Your task to perform on an android device: turn on bluetooth scan Image 0: 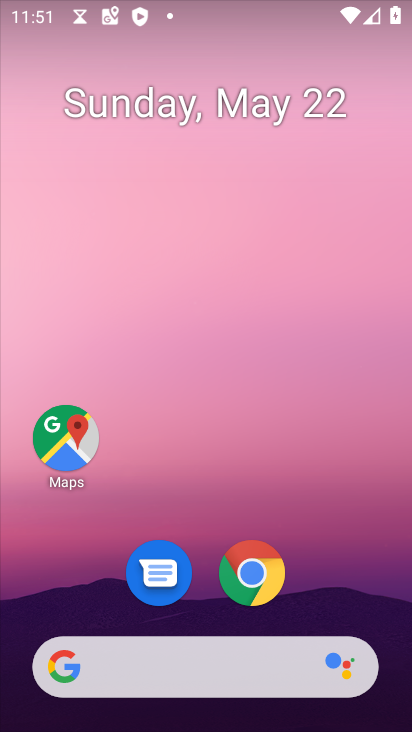
Step 0: press home button
Your task to perform on an android device: turn on bluetooth scan Image 1: 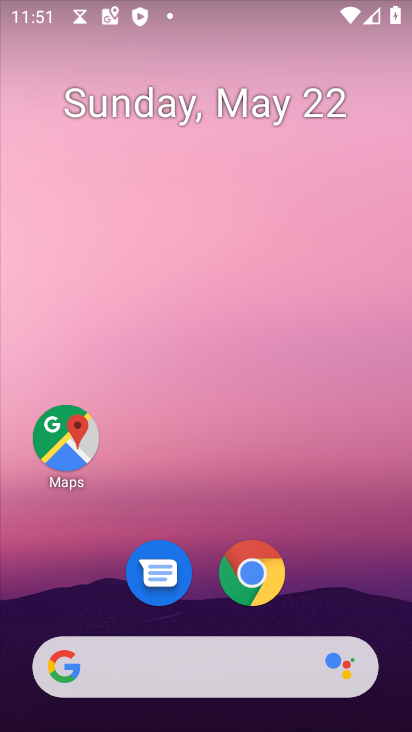
Step 1: drag from (163, 664) to (385, 85)
Your task to perform on an android device: turn on bluetooth scan Image 2: 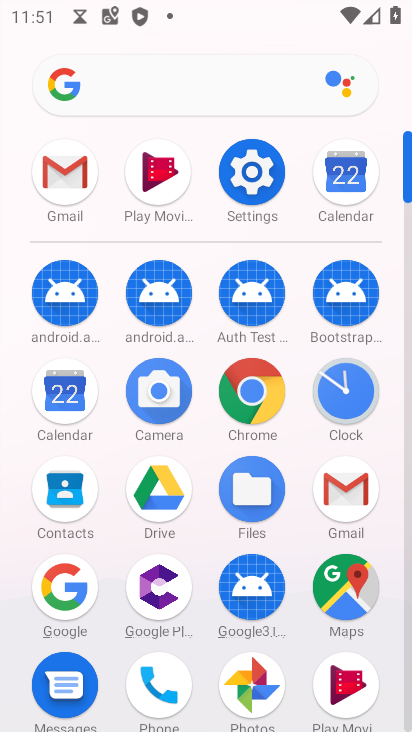
Step 2: click (261, 182)
Your task to perform on an android device: turn on bluetooth scan Image 3: 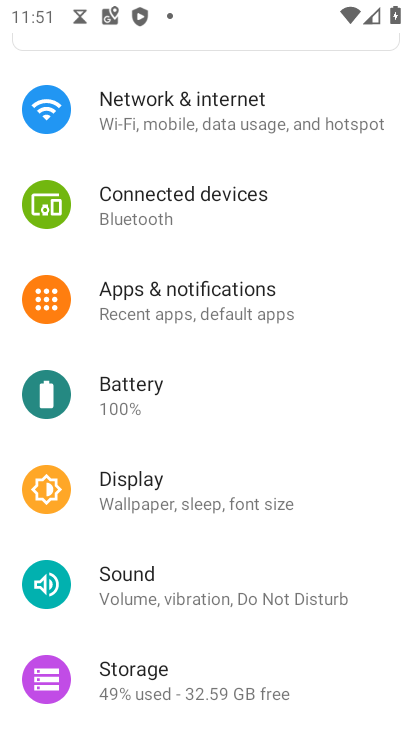
Step 3: drag from (290, 568) to (391, 51)
Your task to perform on an android device: turn on bluetooth scan Image 4: 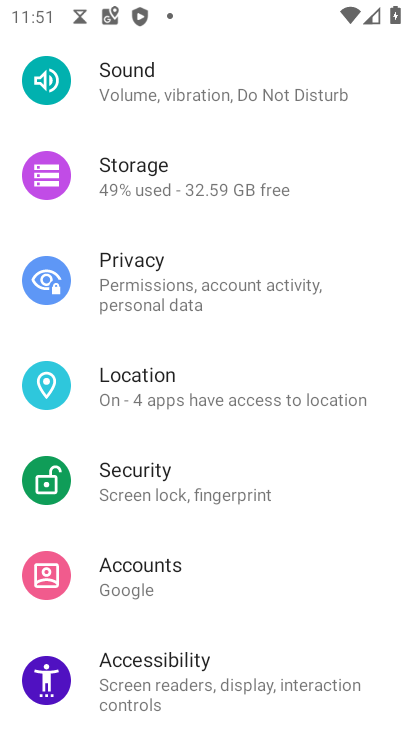
Step 4: drag from (241, 633) to (326, 222)
Your task to perform on an android device: turn on bluetooth scan Image 5: 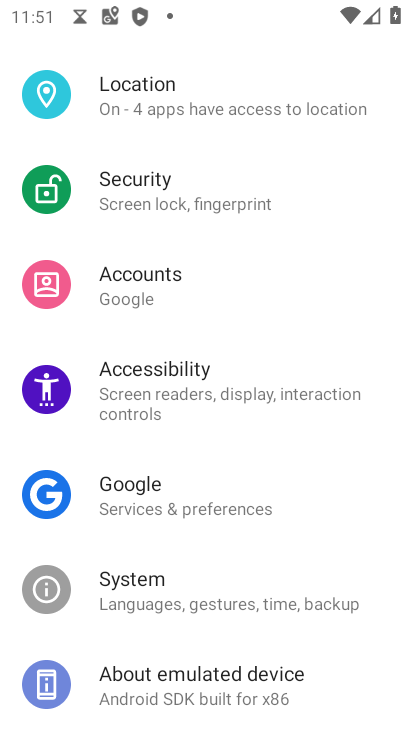
Step 5: drag from (323, 124) to (295, 645)
Your task to perform on an android device: turn on bluetooth scan Image 6: 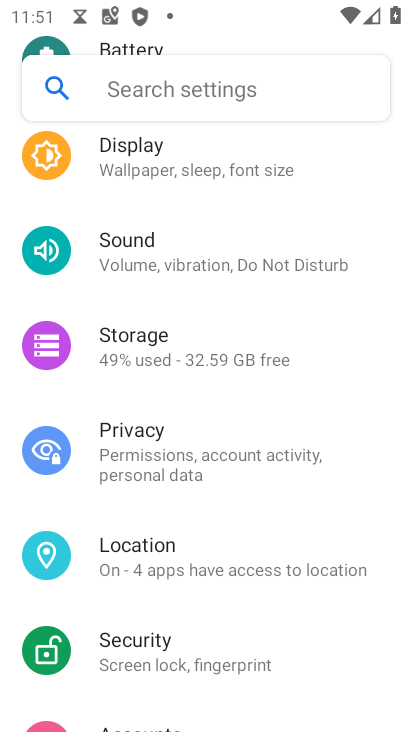
Step 6: drag from (302, 219) to (340, 195)
Your task to perform on an android device: turn on bluetooth scan Image 7: 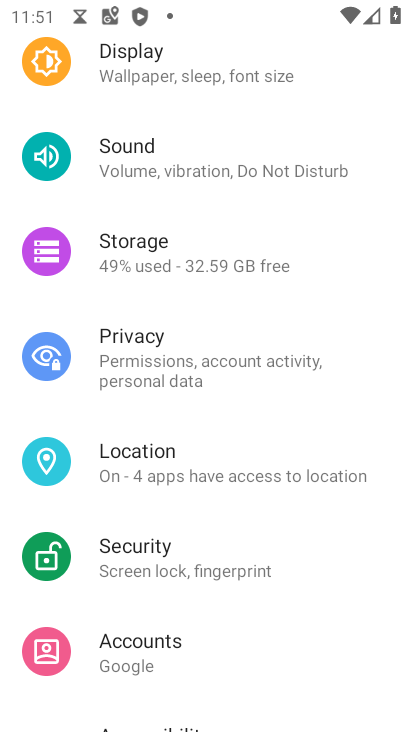
Step 7: click (170, 455)
Your task to perform on an android device: turn on bluetooth scan Image 8: 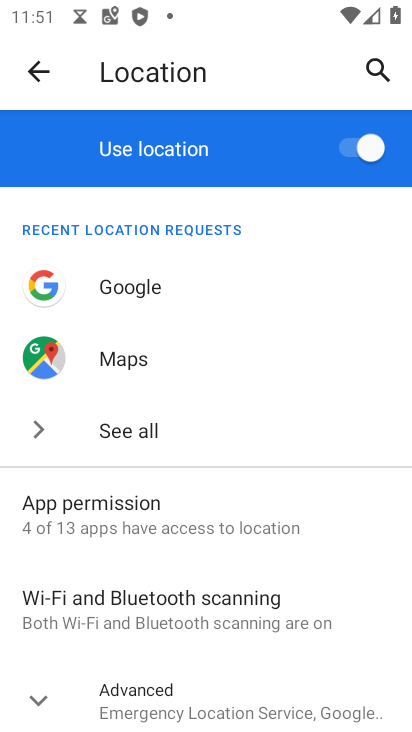
Step 8: click (203, 611)
Your task to perform on an android device: turn on bluetooth scan Image 9: 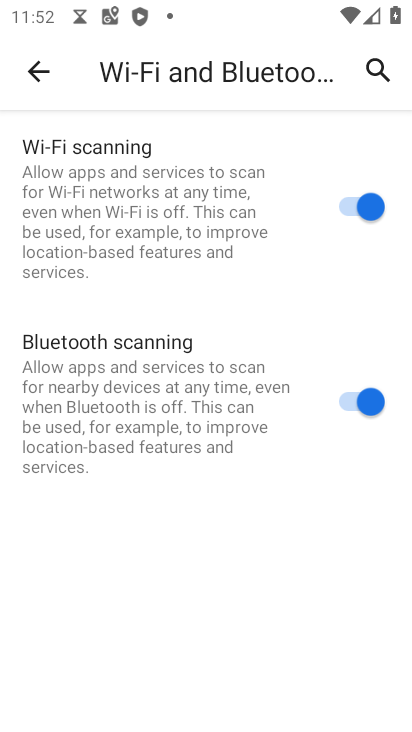
Step 9: task complete